Your task to perform on an android device: Open accessibility settings Image 0: 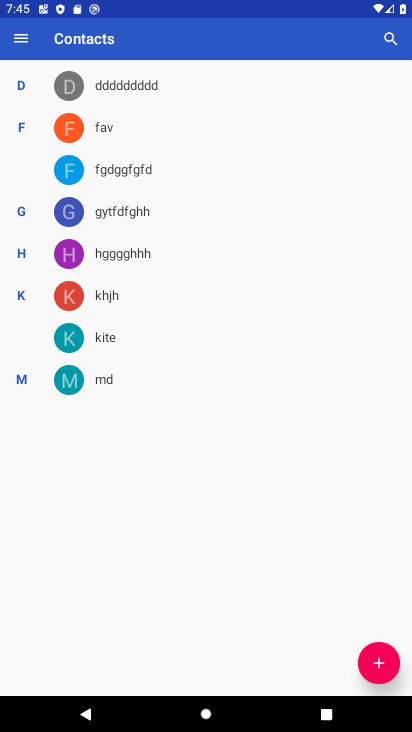
Step 0: press home button
Your task to perform on an android device: Open accessibility settings Image 1: 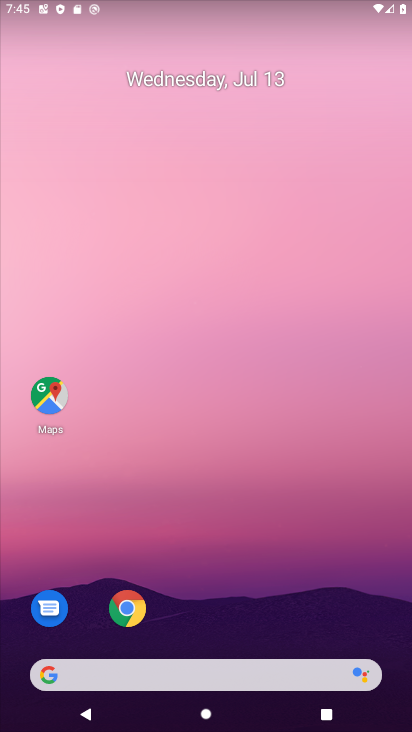
Step 1: drag from (202, 661) to (156, 5)
Your task to perform on an android device: Open accessibility settings Image 2: 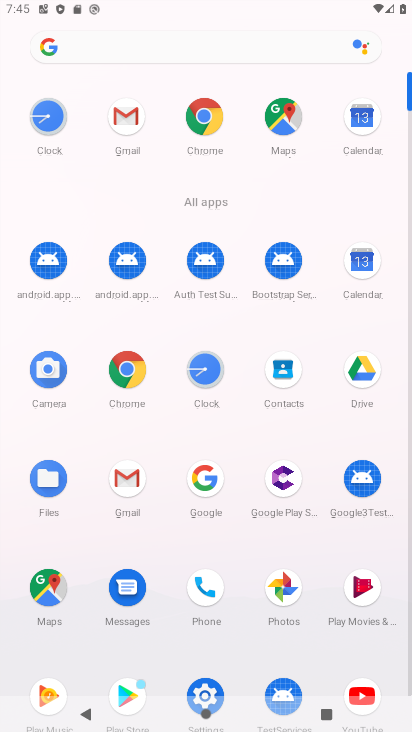
Step 2: click (199, 681)
Your task to perform on an android device: Open accessibility settings Image 3: 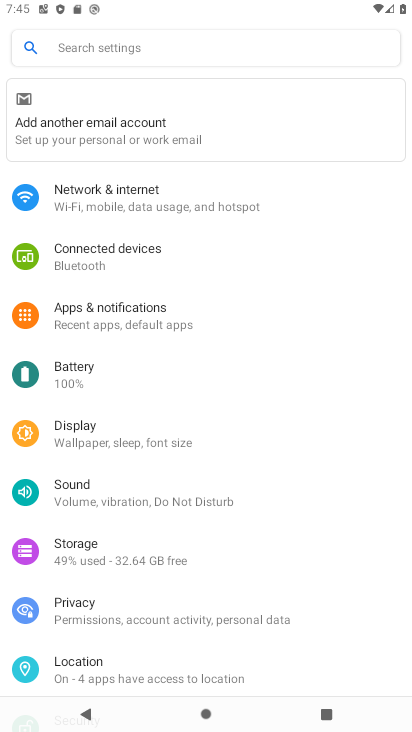
Step 3: drag from (133, 538) to (89, 36)
Your task to perform on an android device: Open accessibility settings Image 4: 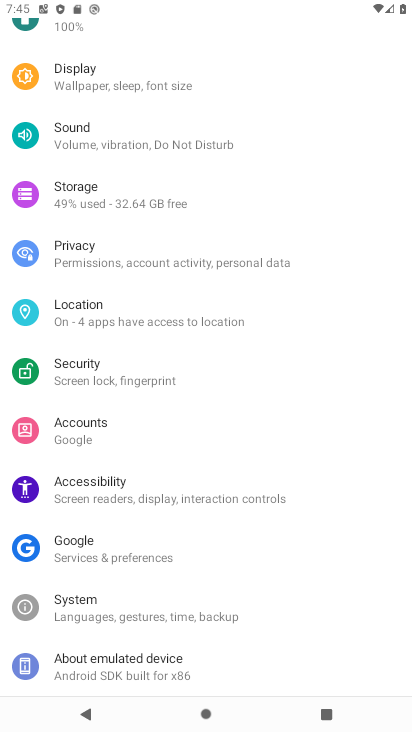
Step 4: click (82, 487)
Your task to perform on an android device: Open accessibility settings Image 5: 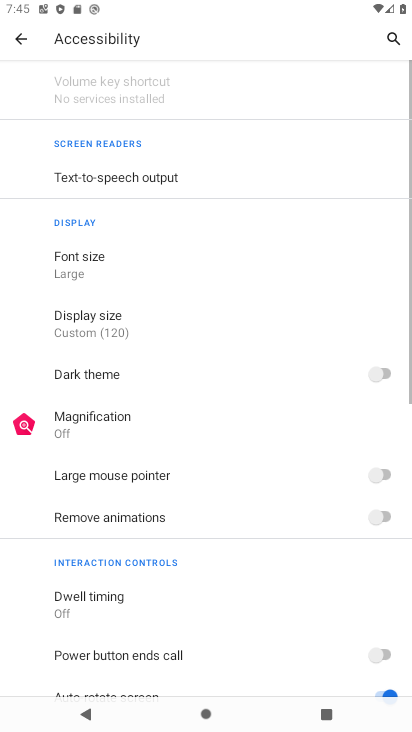
Step 5: task complete